Your task to perform on an android device: change the clock style Image 0: 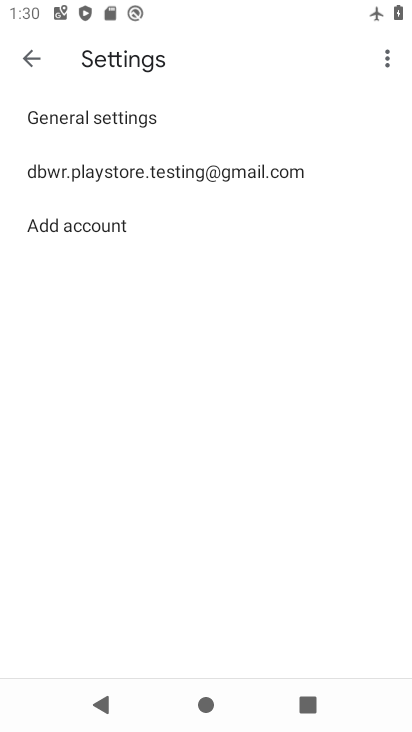
Step 0: drag from (277, 582) to (408, 448)
Your task to perform on an android device: change the clock style Image 1: 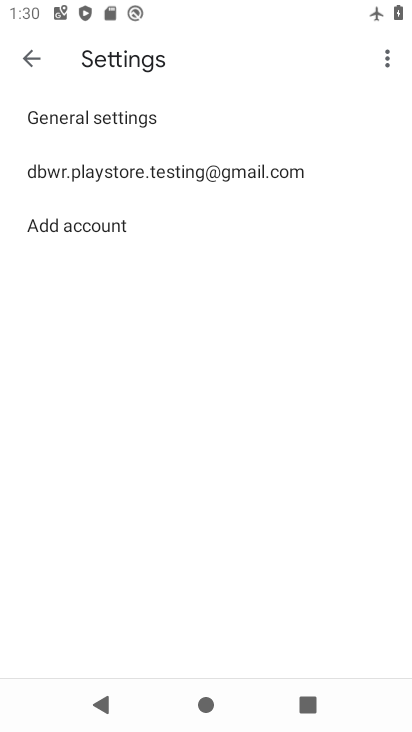
Step 1: press home button
Your task to perform on an android device: change the clock style Image 2: 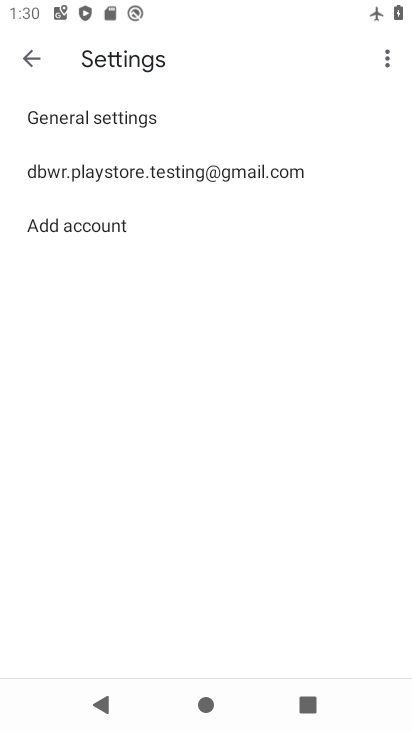
Step 2: drag from (408, 448) to (332, 512)
Your task to perform on an android device: change the clock style Image 3: 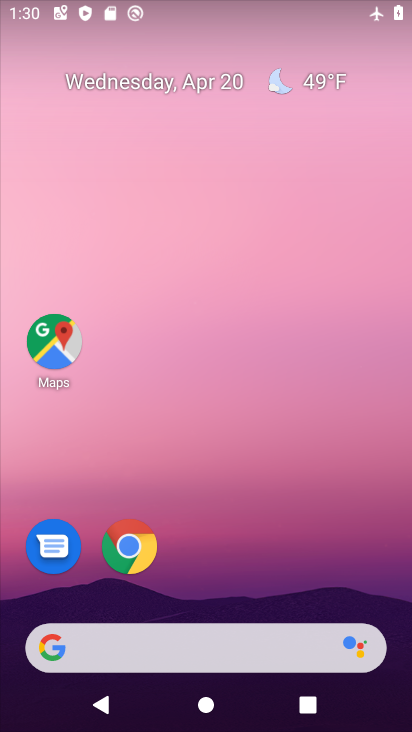
Step 3: drag from (289, 363) to (297, 255)
Your task to perform on an android device: change the clock style Image 4: 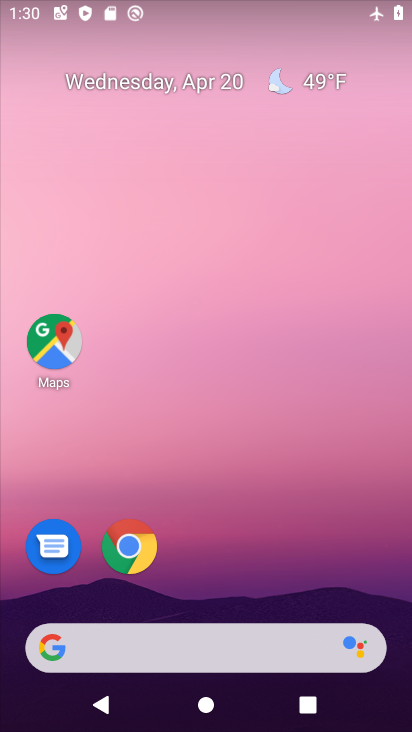
Step 4: drag from (273, 532) to (317, 189)
Your task to perform on an android device: change the clock style Image 5: 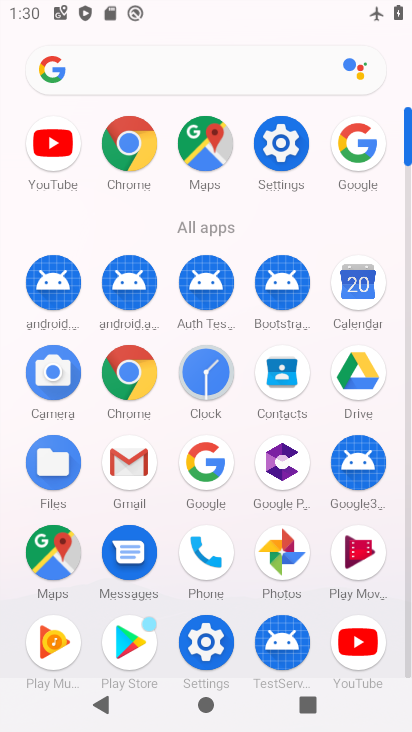
Step 5: click (207, 364)
Your task to perform on an android device: change the clock style Image 6: 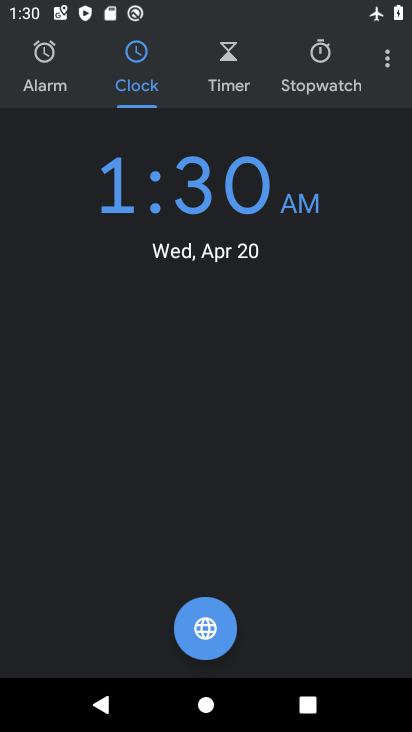
Step 6: click (388, 51)
Your task to perform on an android device: change the clock style Image 7: 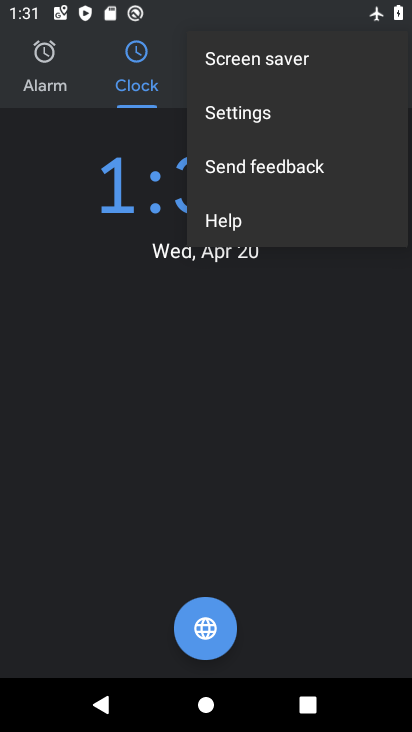
Step 7: click (280, 116)
Your task to perform on an android device: change the clock style Image 8: 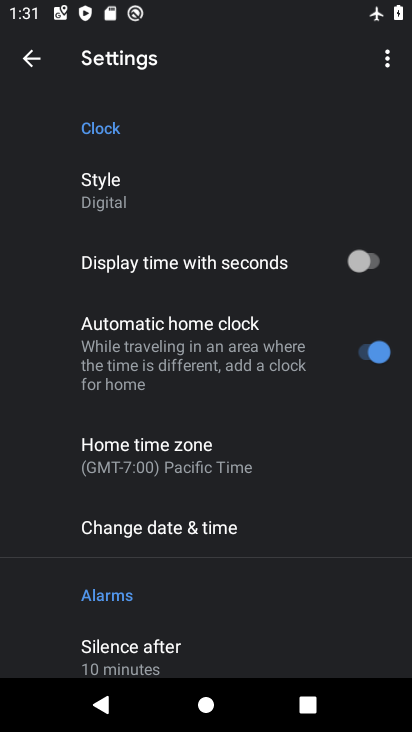
Step 8: click (196, 178)
Your task to perform on an android device: change the clock style Image 9: 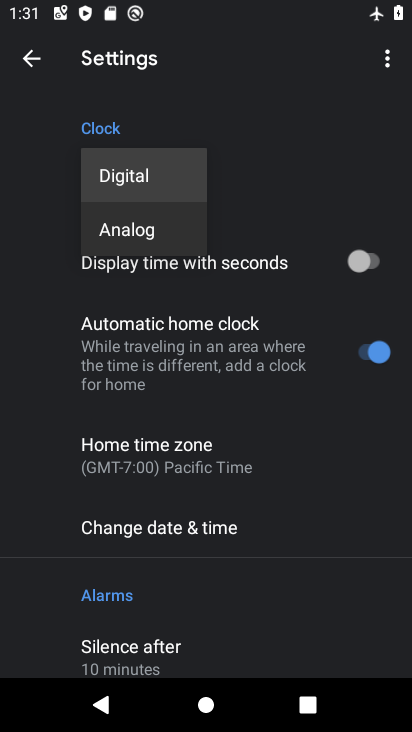
Step 9: click (168, 221)
Your task to perform on an android device: change the clock style Image 10: 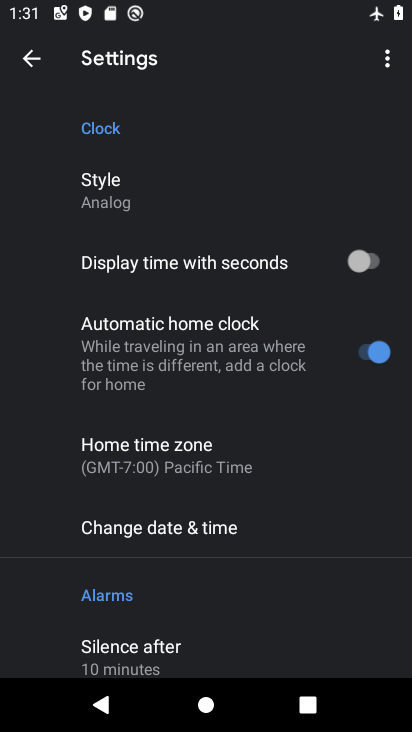
Step 10: task complete